Your task to perform on an android device: install app "Google Play services" Image 0: 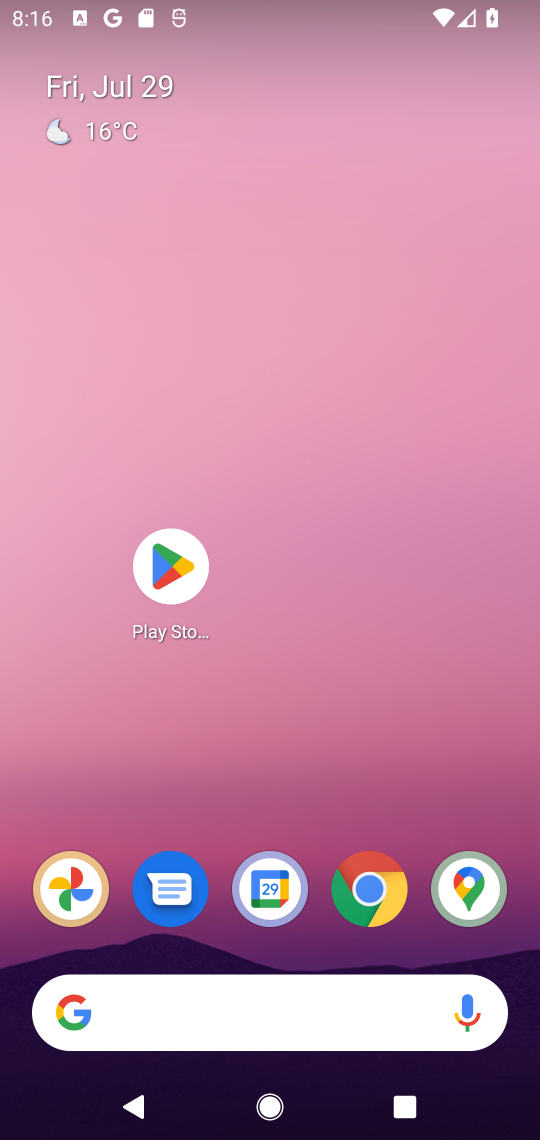
Step 0: press home button
Your task to perform on an android device: install app "Google Play services" Image 1: 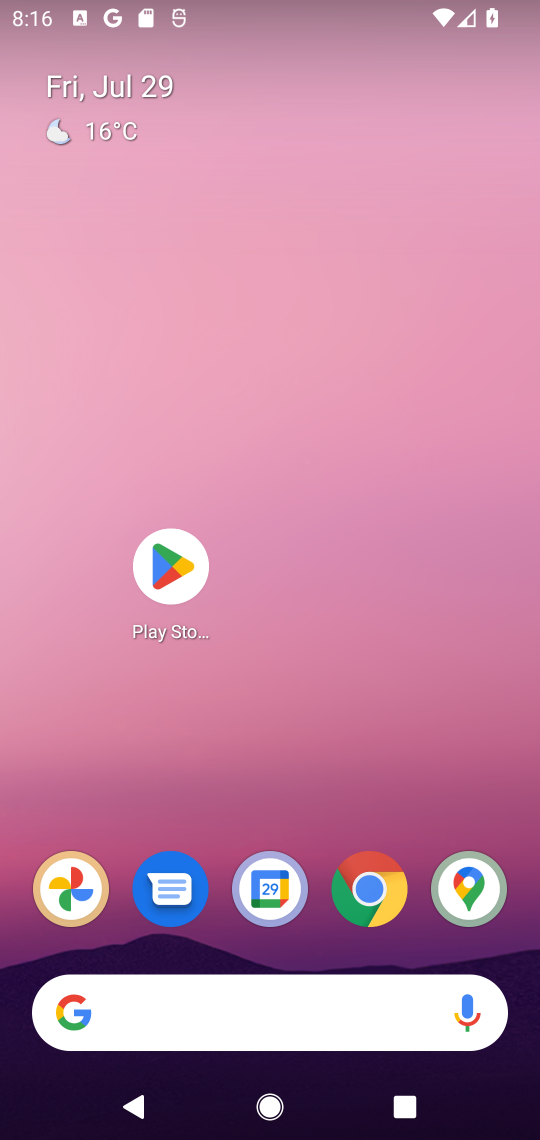
Step 1: click (172, 571)
Your task to perform on an android device: install app "Google Play services" Image 2: 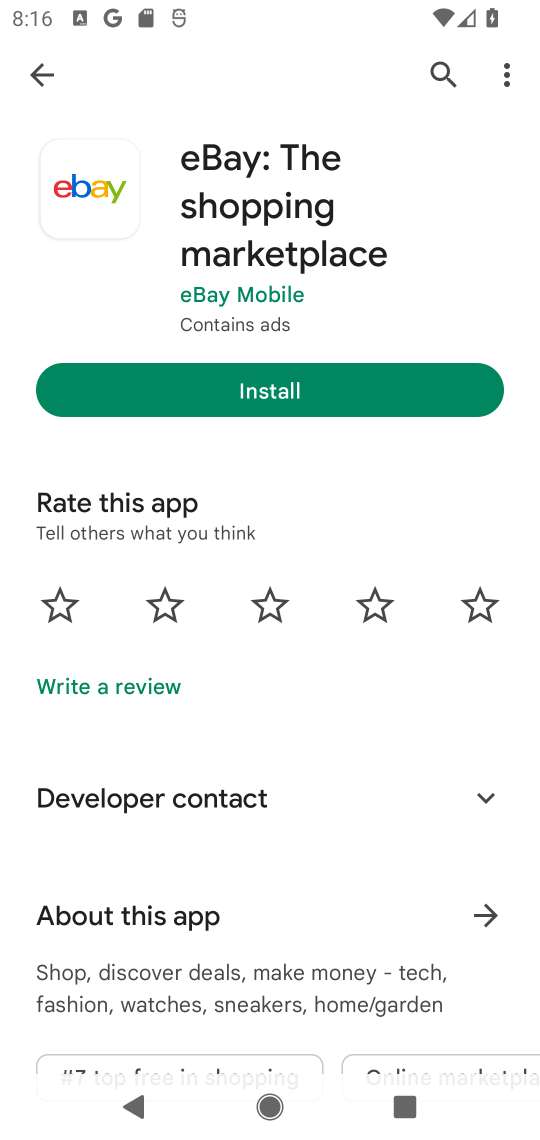
Step 2: click (441, 64)
Your task to perform on an android device: install app "Google Play services" Image 3: 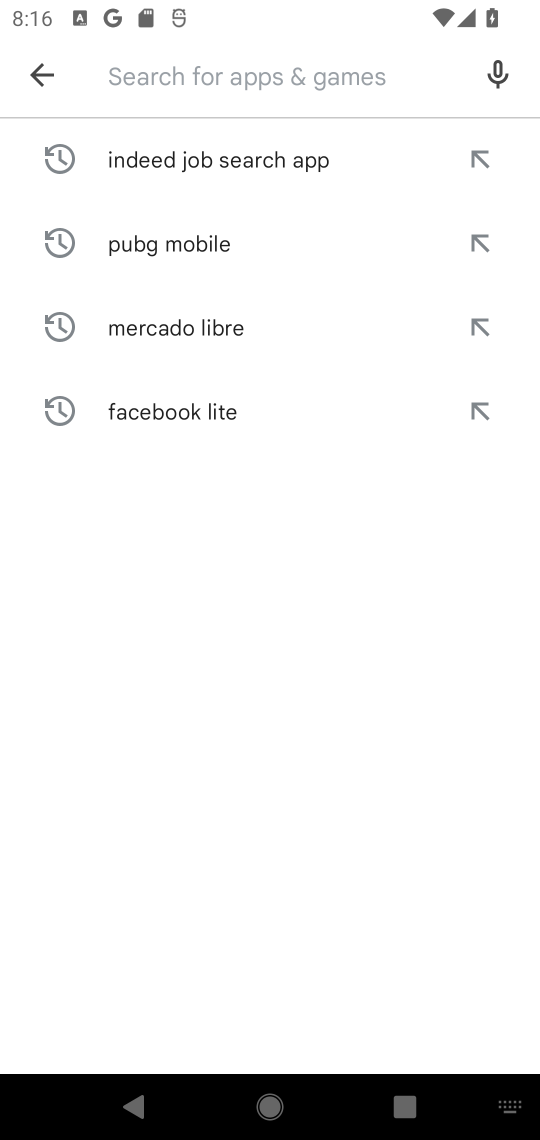
Step 3: type "Google Play services"
Your task to perform on an android device: install app "Google Play services" Image 4: 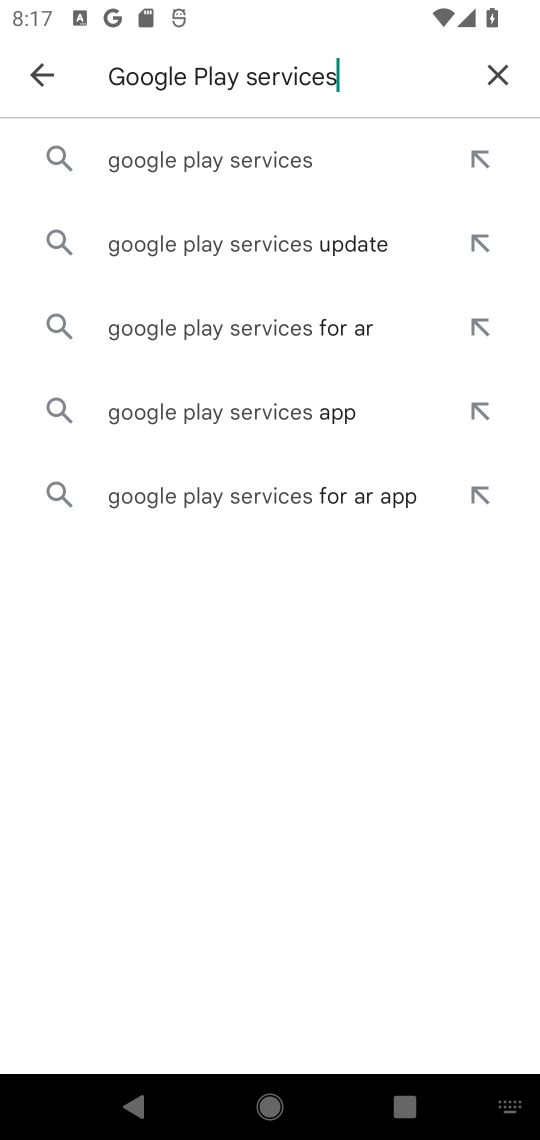
Step 4: click (260, 157)
Your task to perform on an android device: install app "Google Play services" Image 5: 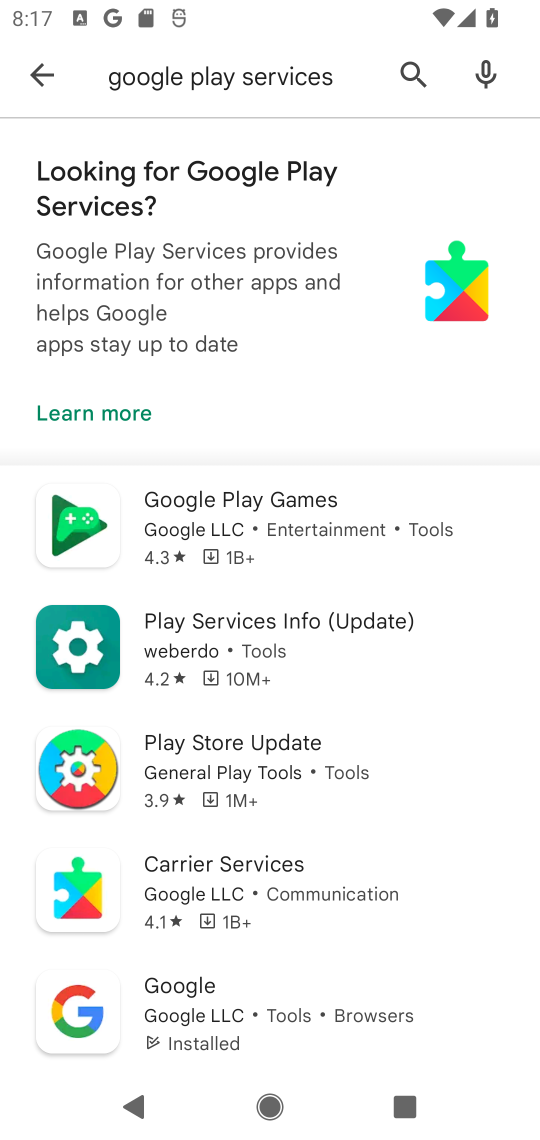
Step 5: click (259, 519)
Your task to perform on an android device: install app "Google Play services" Image 6: 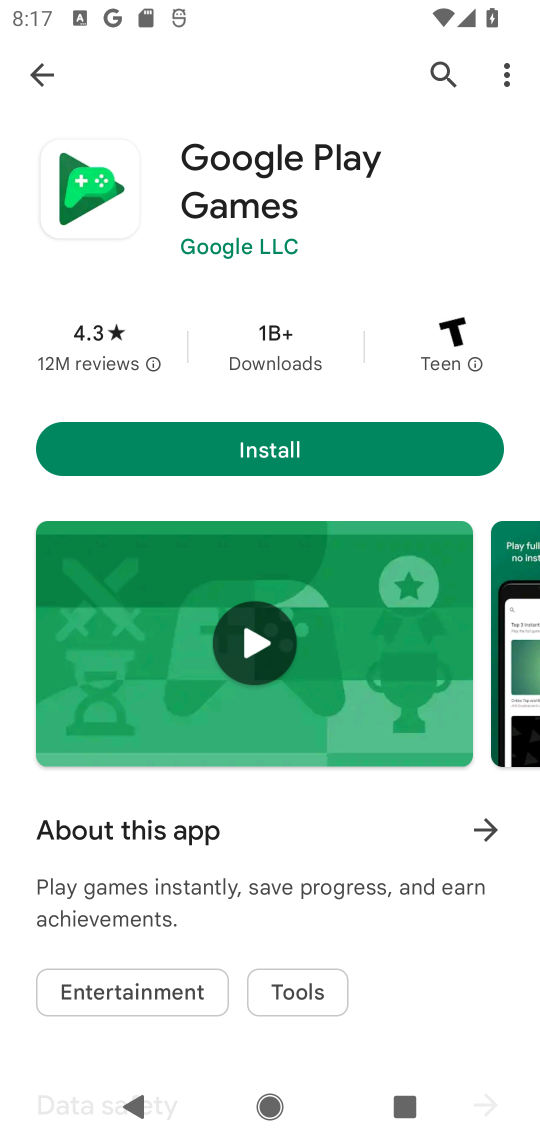
Step 6: click (276, 455)
Your task to perform on an android device: install app "Google Play services" Image 7: 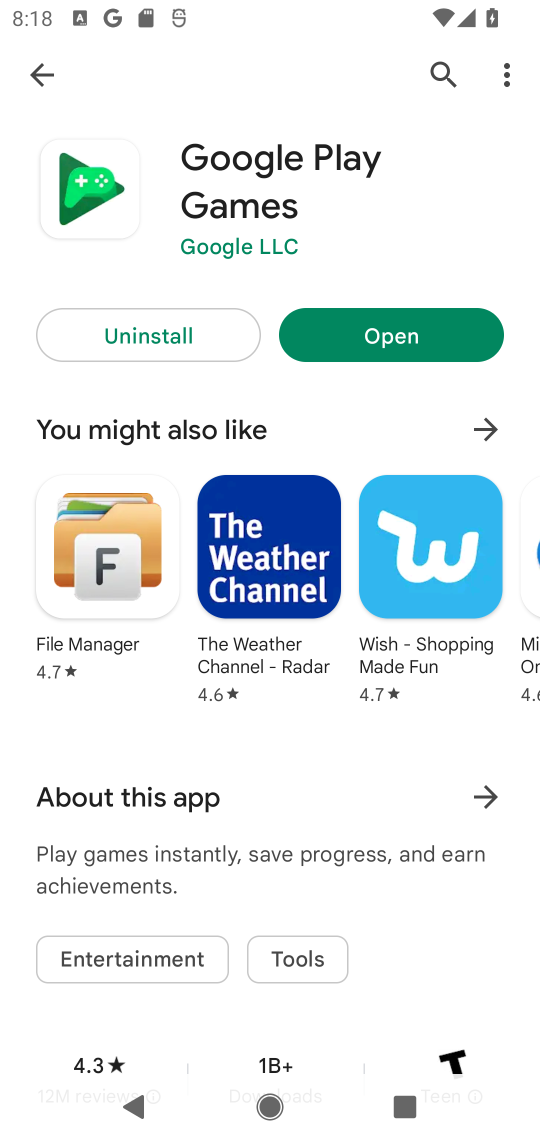
Step 7: task complete